Your task to perform on an android device: What's on my calendar today? Image 0: 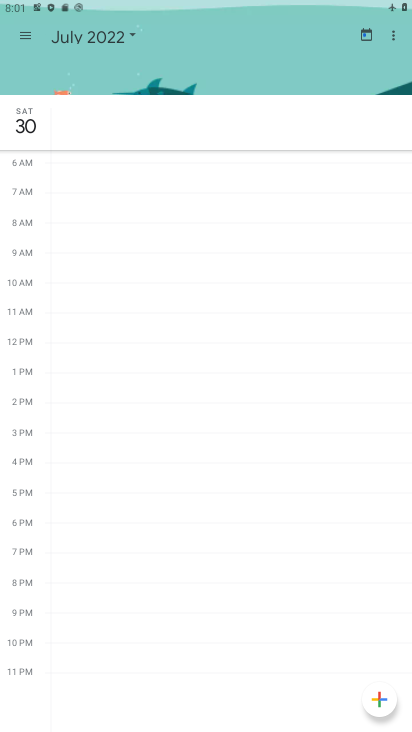
Step 0: press home button
Your task to perform on an android device: What's on my calendar today? Image 1: 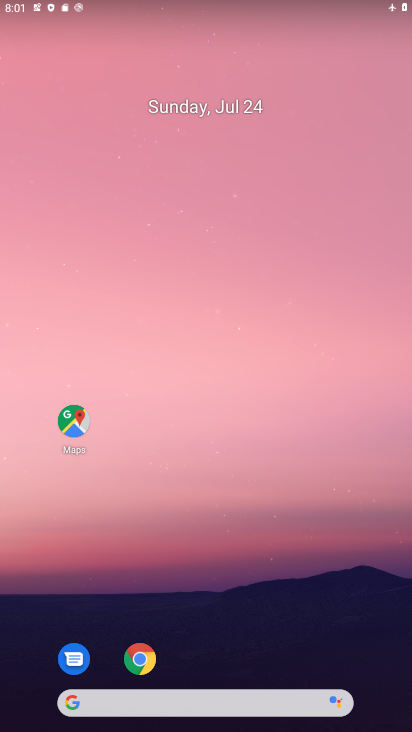
Step 1: drag from (238, 729) to (239, 64)
Your task to perform on an android device: What's on my calendar today? Image 2: 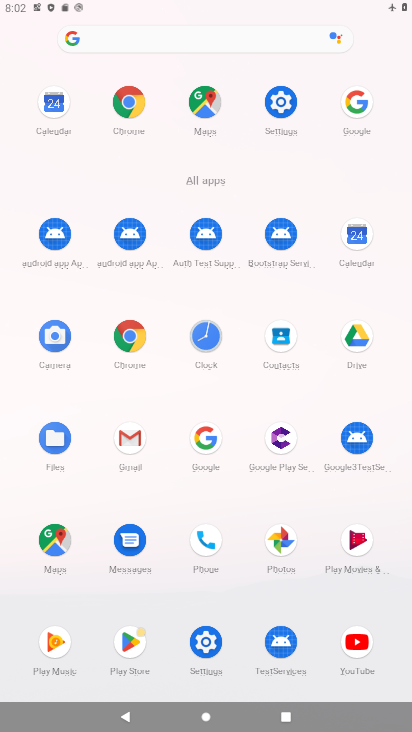
Step 2: click (357, 219)
Your task to perform on an android device: What's on my calendar today? Image 3: 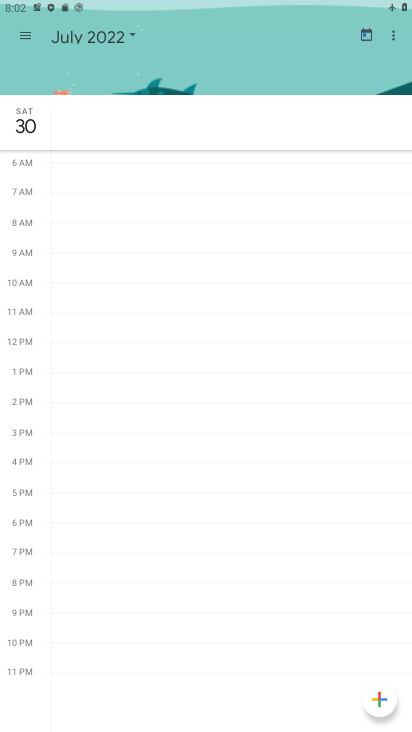
Step 3: click (130, 33)
Your task to perform on an android device: What's on my calendar today? Image 4: 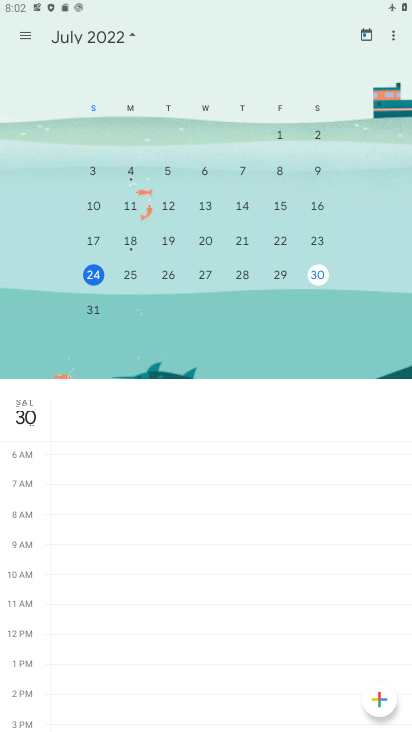
Step 4: click (100, 270)
Your task to perform on an android device: What's on my calendar today? Image 5: 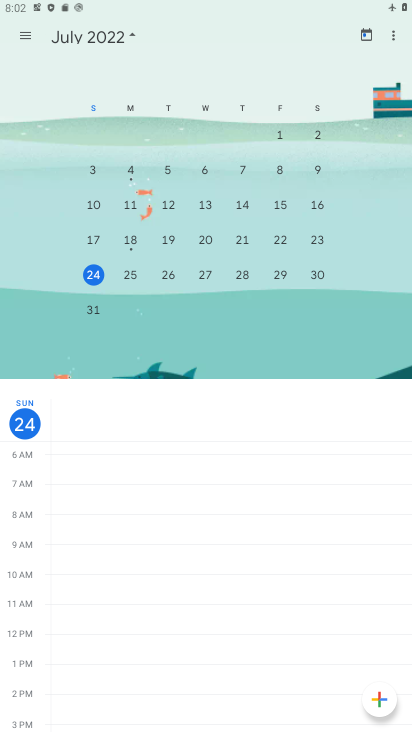
Step 5: click (90, 271)
Your task to perform on an android device: What's on my calendar today? Image 6: 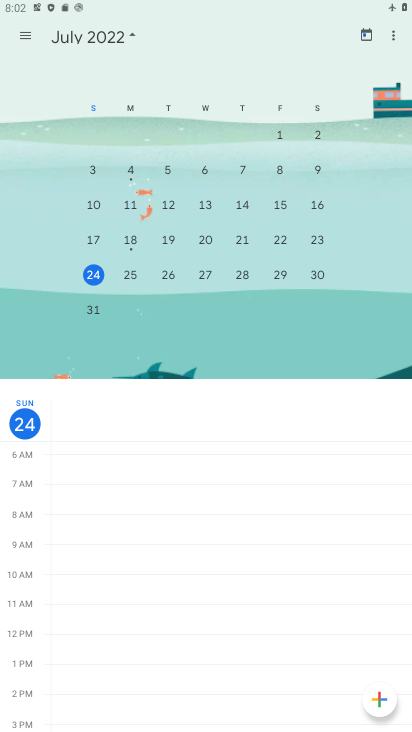
Step 6: click (94, 274)
Your task to perform on an android device: What's on my calendar today? Image 7: 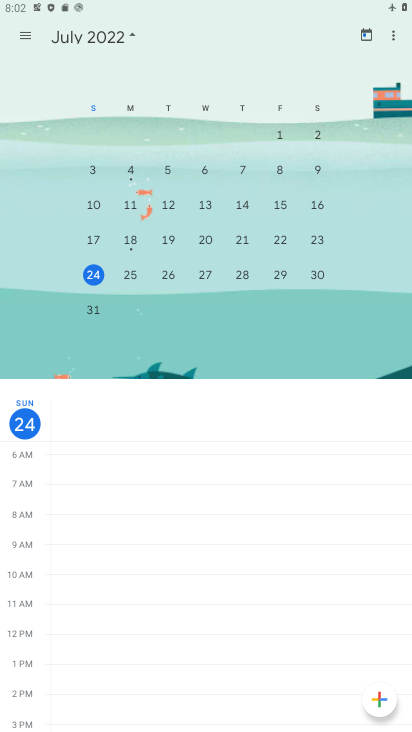
Step 7: click (94, 274)
Your task to perform on an android device: What's on my calendar today? Image 8: 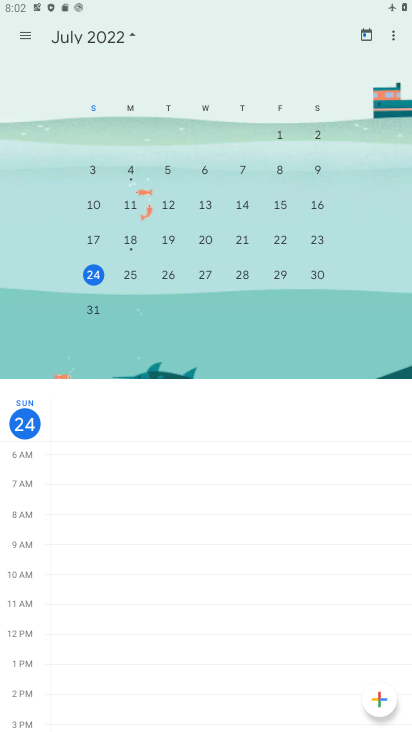
Step 8: click (26, 417)
Your task to perform on an android device: What's on my calendar today? Image 9: 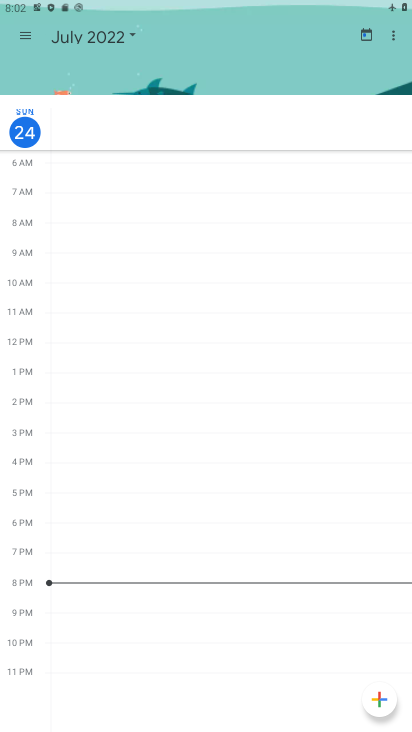
Step 9: task complete